Your task to perform on an android device: Search for vegetarian restaurants on Maps Image 0: 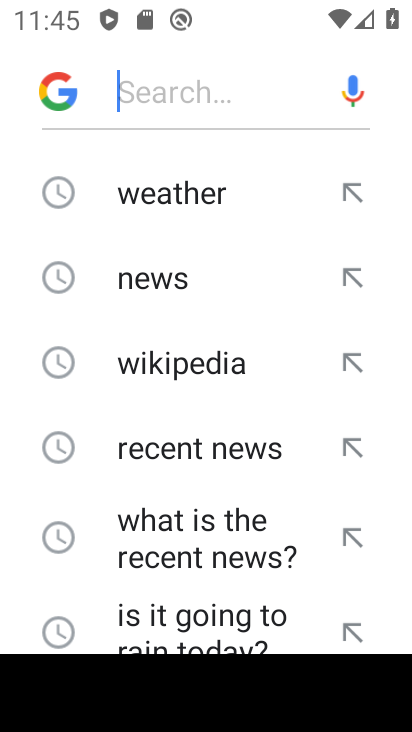
Step 0: press home button
Your task to perform on an android device: Search for vegetarian restaurants on Maps Image 1: 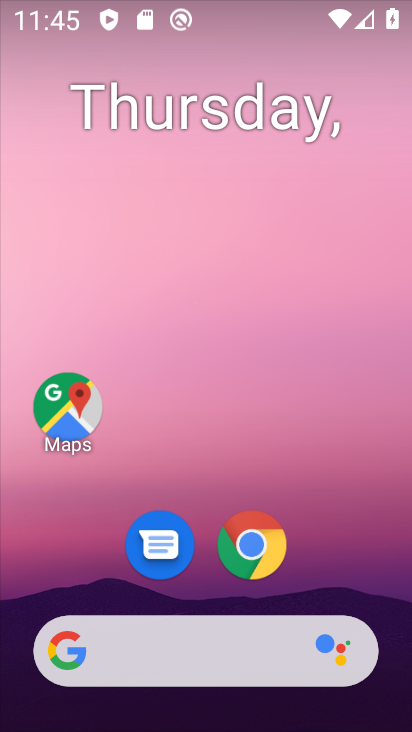
Step 1: click (54, 405)
Your task to perform on an android device: Search for vegetarian restaurants on Maps Image 2: 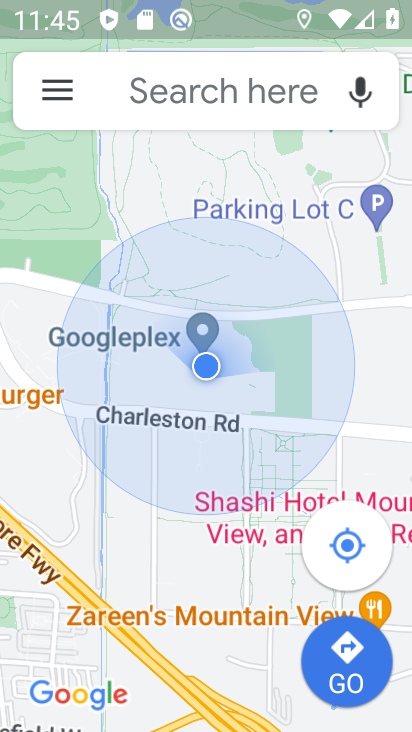
Step 2: click (212, 90)
Your task to perform on an android device: Search for vegetarian restaurants on Maps Image 3: 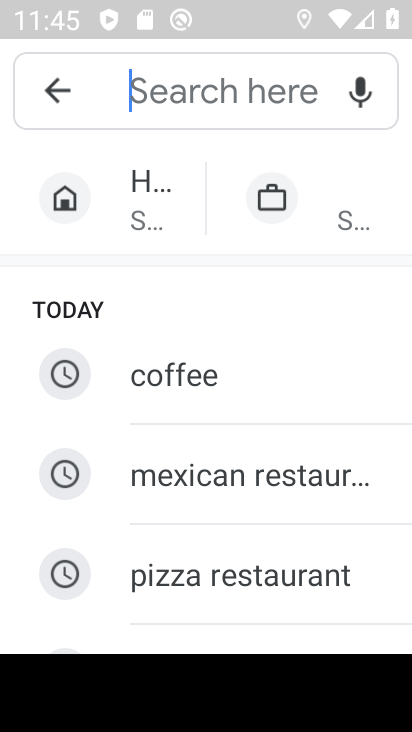
Step 3: drag from (220, 563) to (234, 278)
Your task to perform on an android device: Search for vegetarian restaurants on Maps Image 4: 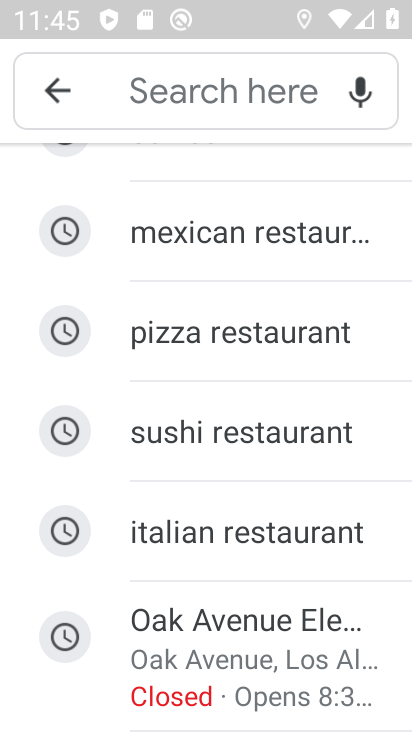
Step 4: click (205, 76)
Your task to perform on an android device: Search for vegetarian restaurants on Maps Image 5: 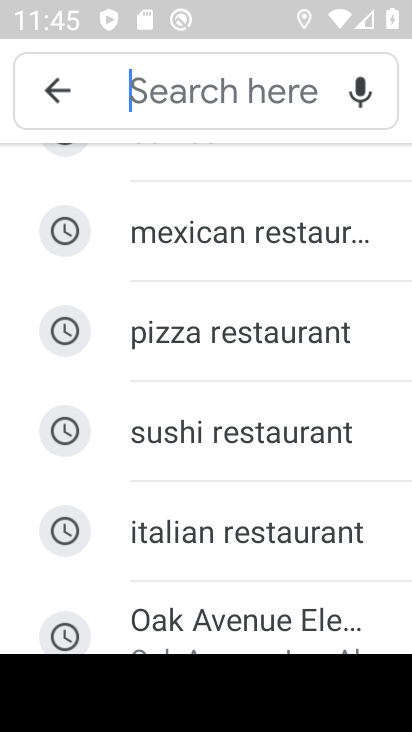
Step 5: type "vegetarian restaurants "
Your task to perform on an android device: Search for vegetarian restaurants on Maps Image 6: 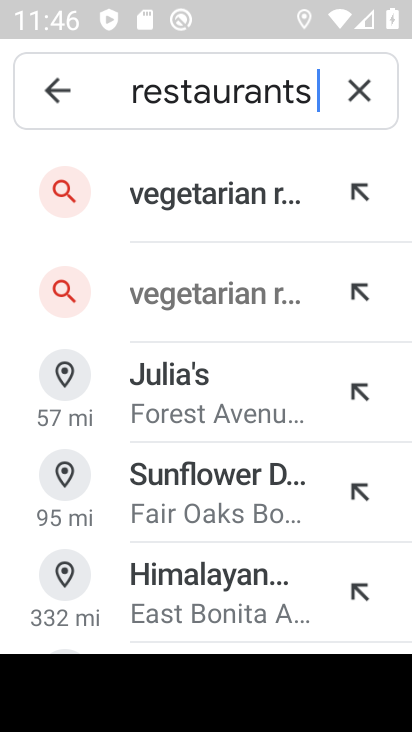
Step 6: click (247, 186)
Your task to perform on an android device: Search for vegetarian restaurants on Maps Image 7: 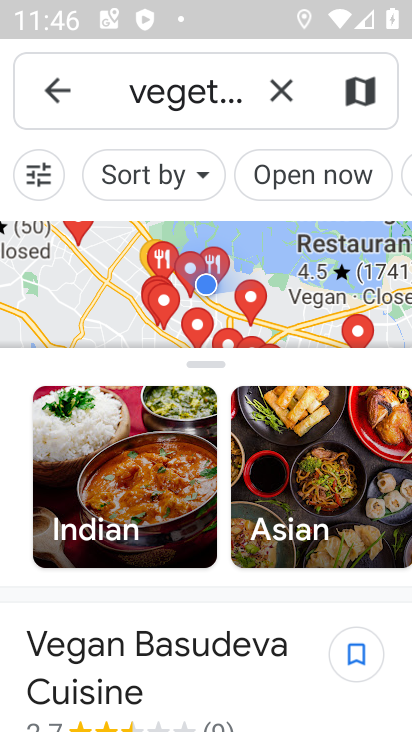
Step 7: task complete